Your task to perform on an android device: open app "Google Play Games" (install if not already installed) Image 0: 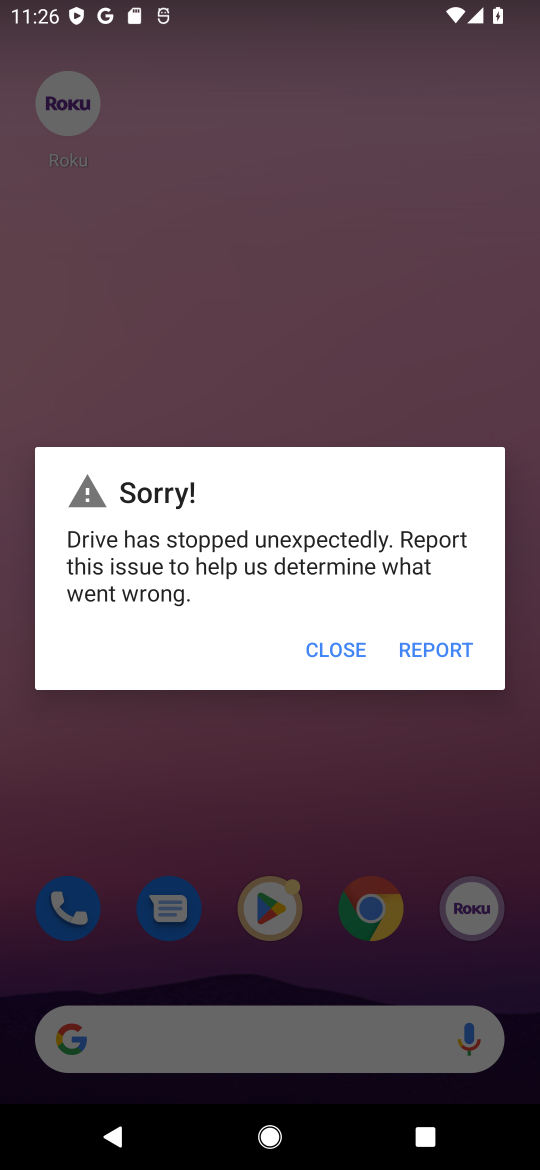
Step 0: press home button
Your task to perform on an android device: open app "Google Play Games" (install if not already installed) Image 1: 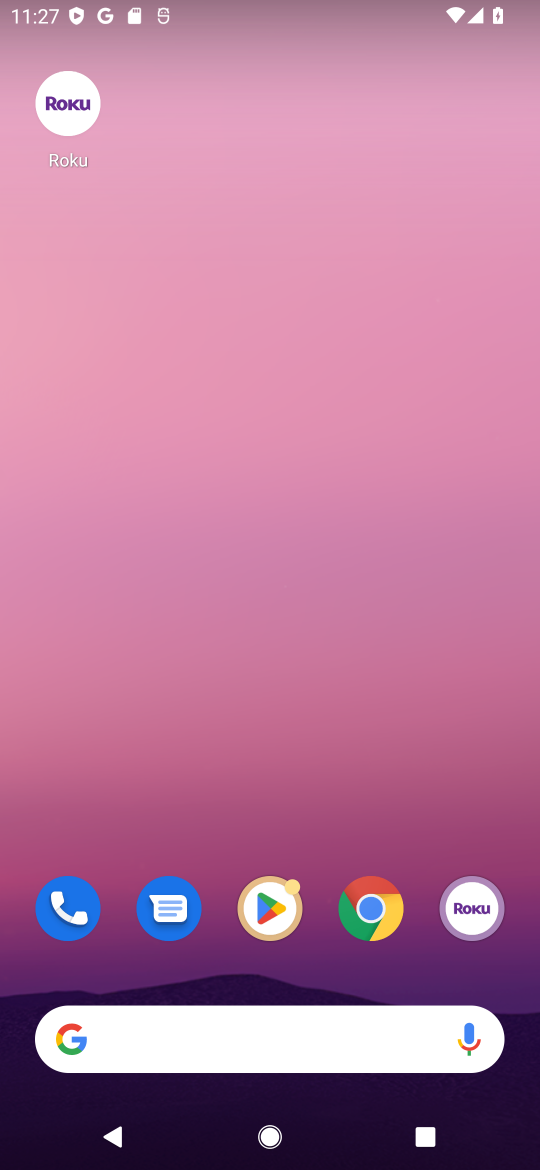
Step 1: click (255, 906)
Your task to perform on an android device: open app "Google Play Games" (install if not already installed) Image 2: 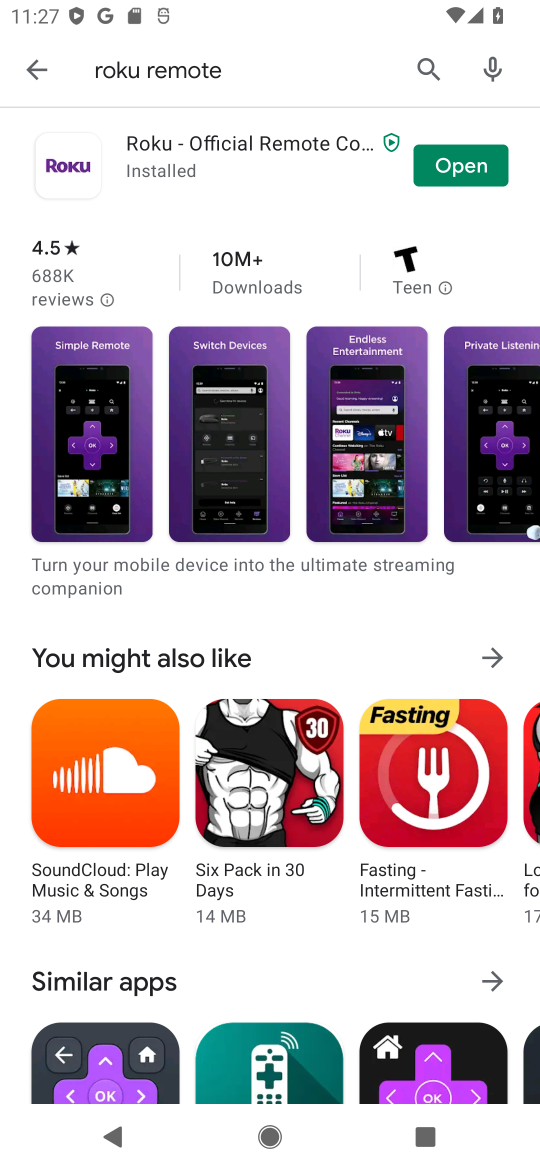
Step 2: click (34, 71)
Your task to perform on an android device: open app "Google Play Games" (install if not already installed) Image 3: 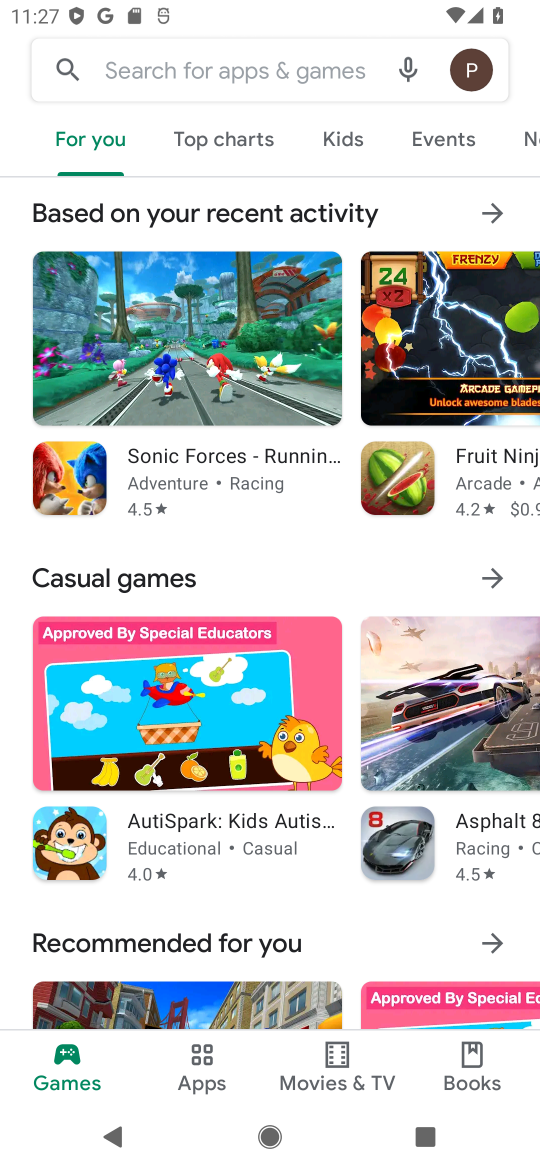
Step 3: click (156, 74)
Your task to perform on an android device: open app "Google Play Games" (install if not already installed) Image 4: 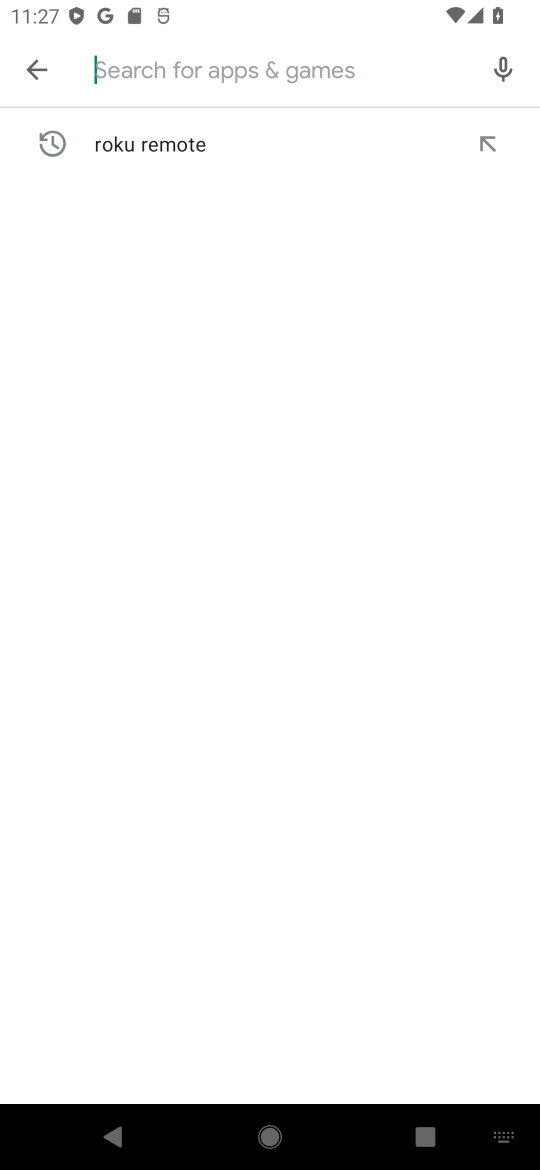
Step 4: type "Google Play Games"
Your task to perform on an android device: open app "Google Play Games" (install if not already installed) Image 5: 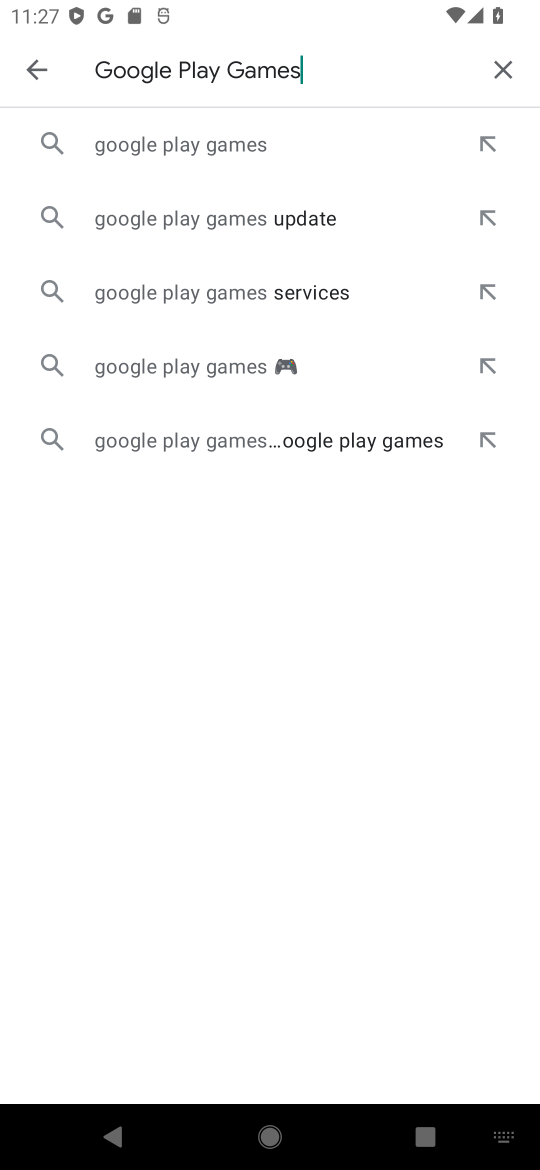
Step 5: click (188, 148)
Your task to perform on an android device: open app "Google Play Games" (install if not already installed) Image 6: 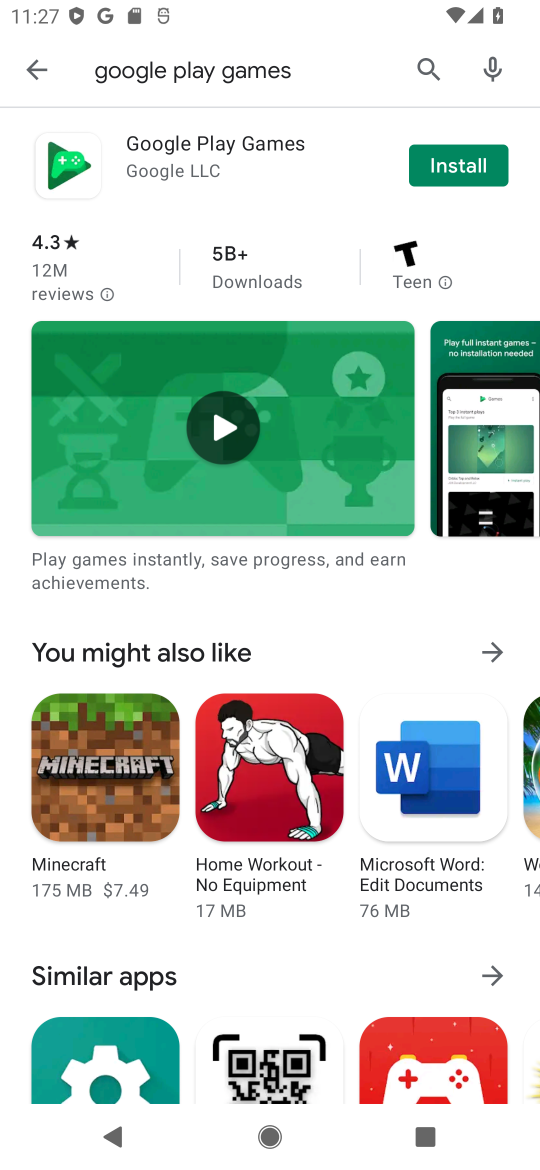
Step 6: click (446, 156)
Your task to perform on an android device: open app "Google Play Games" (install if not already installed) Image 7: 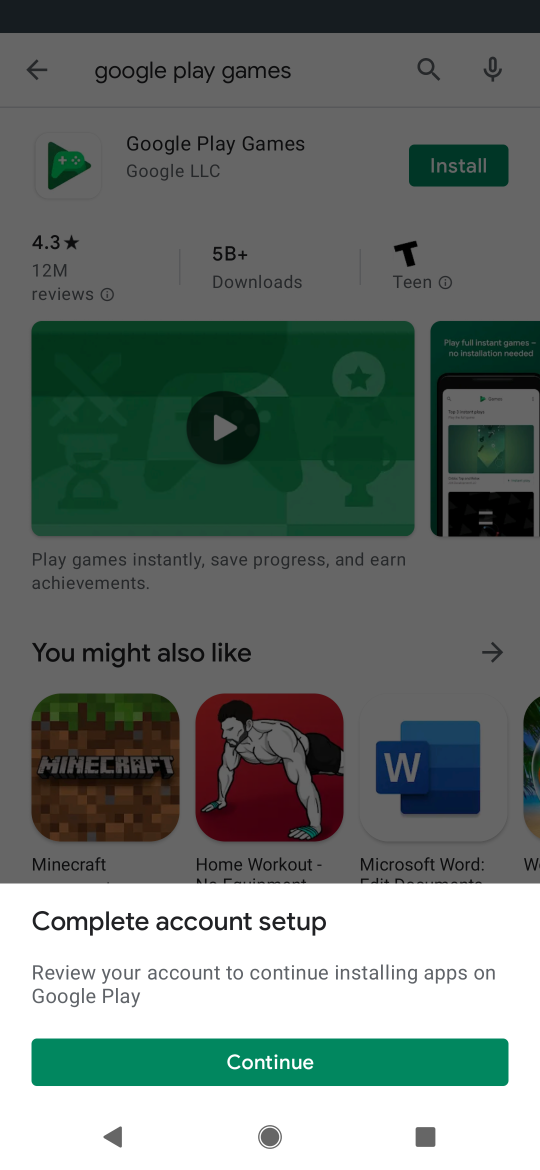
Step 7: click (348, 1055)
Your task to perform on an android device: open app "Google Play Games" (install if not already installed) Image 8: 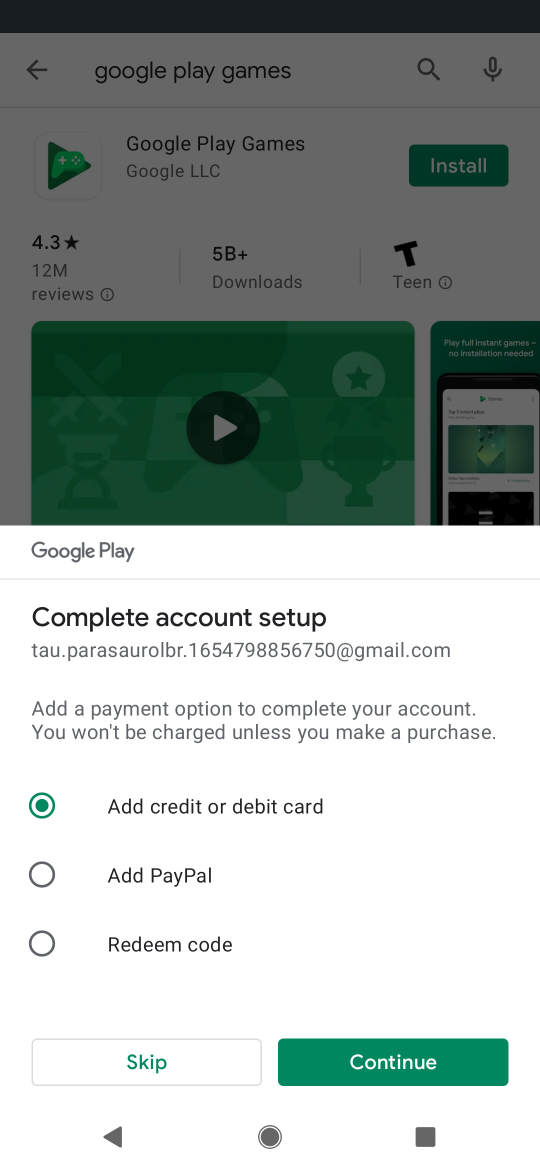
Step 8: click (122, 1071)
Your task to perform on an android device: open app "Google Play Games" (install if not already installed) Image 9: 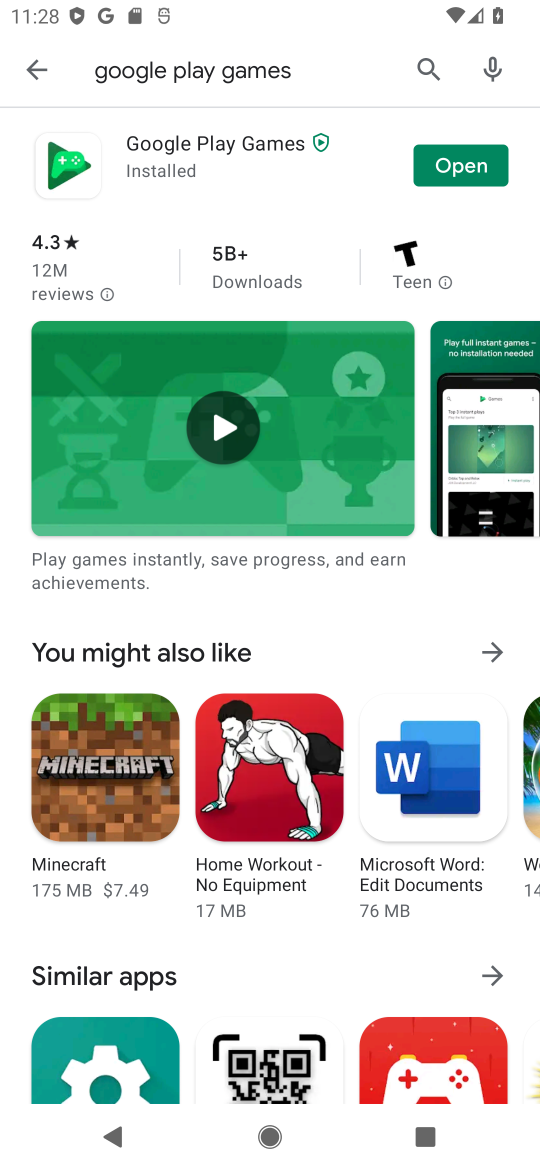
Step 9: click (477, 156)
Your task to perform on an android device: open app "Google Play Games" (install if not already installed) Image 10: 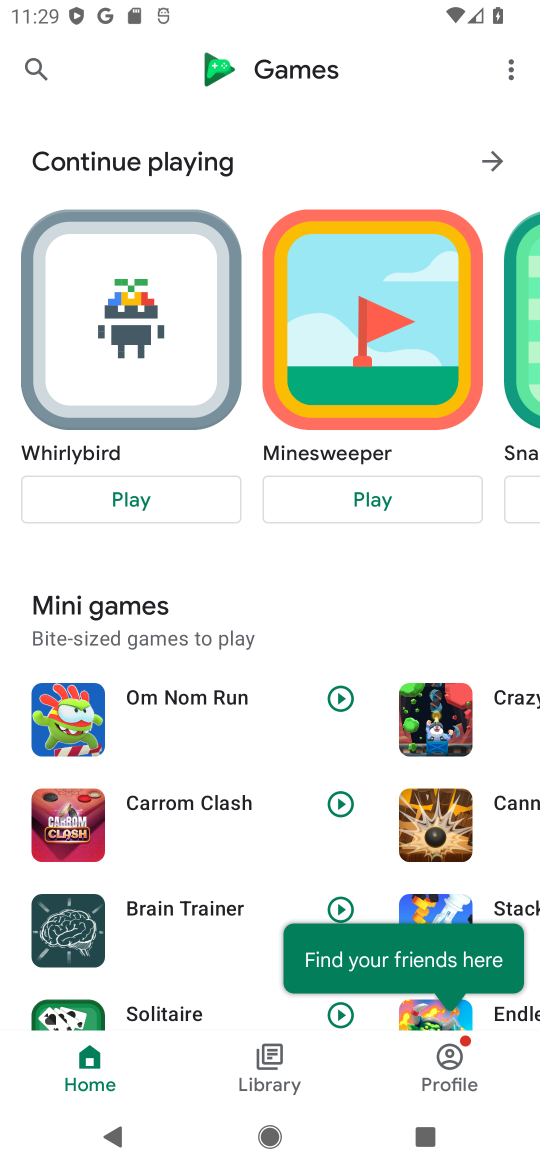
Step 10: task complete